Your task to perform on an android device: toggle improve location accuracy Image 0: 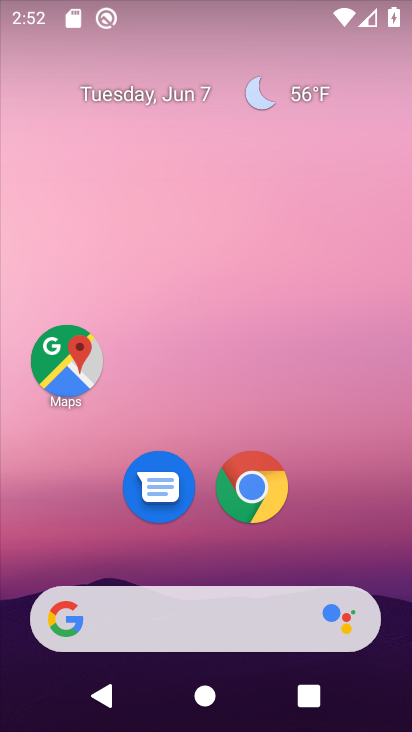
Step 0: drag from (393, 566) to (304, 198)
Your task to perform on an android device: toggle improve location accuracy Image 1: 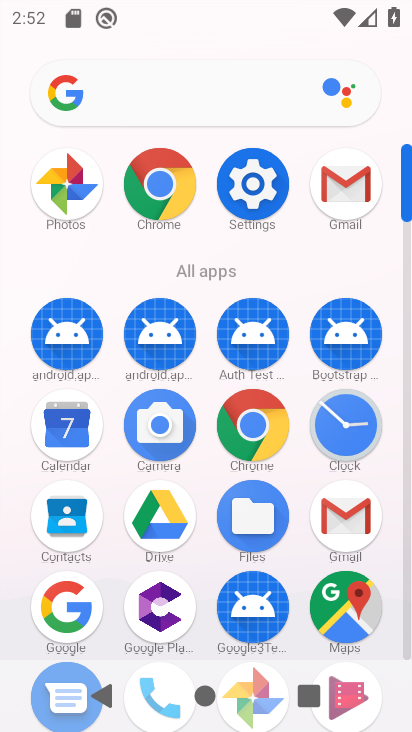
Step 1: click (269, 167)
Your task to perform on an android device: toggle improve location accuracy Image 2: 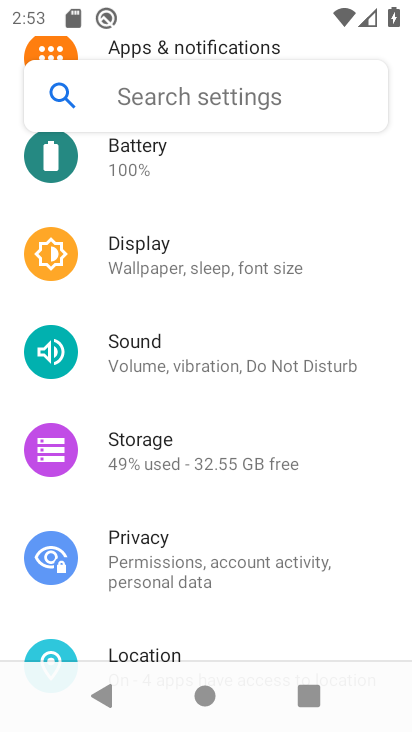
Step 2: click (321, 645)
Your task to perform on an android device: toggle improve location accuracy Image 3: 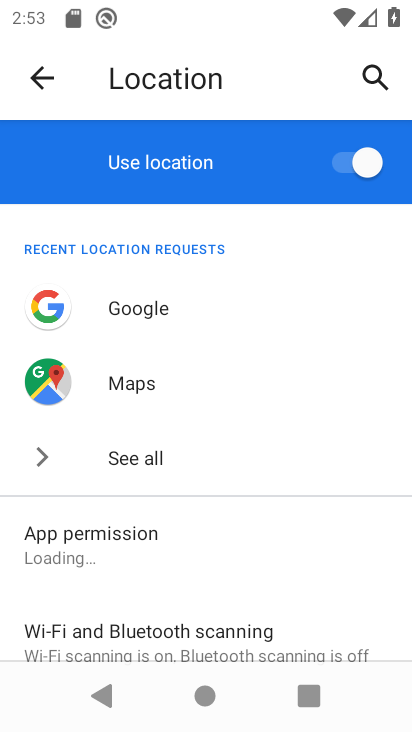
Step 3: drag from (301, 592) to (211, 58)
Your task to perform on an android device: toggle improve location accuracy Image 4: 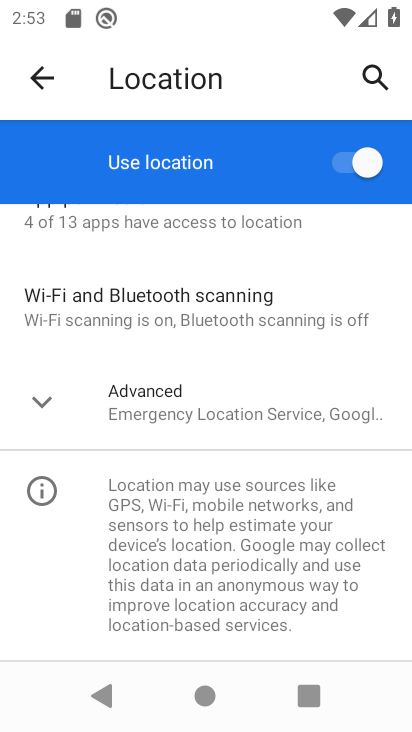
Step 4: click (215, 406)
Your task to perform on an android device: toggle improve location accuracy Image 5: 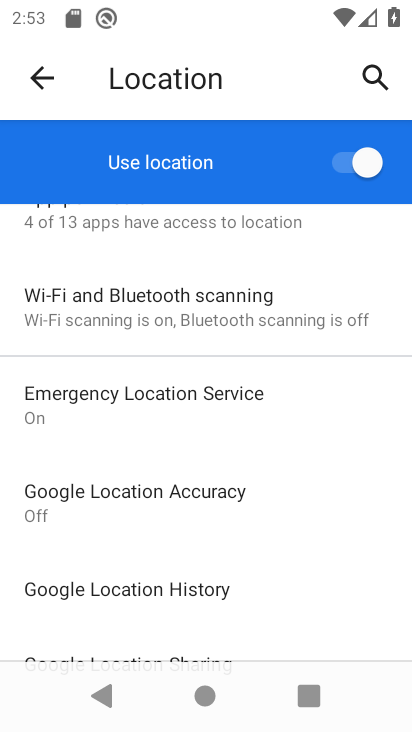
Step 5: click (266, 499)
Your task to perform on an android device: toggle improve location accuracy Image 6: 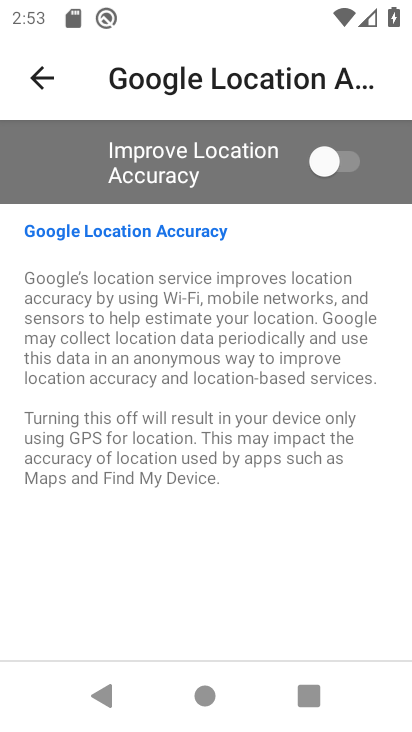
Step 6: click (325, 171)
Your task to perform on an android device: toggle improve location accuracy Image 7: 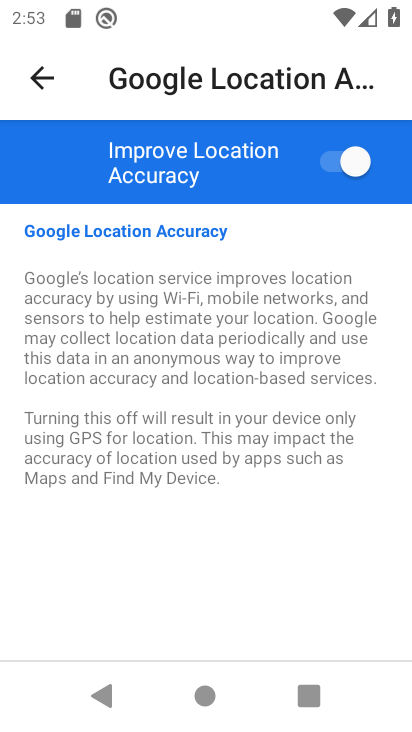
Step 7: task complete